Your task to perform on an android device: Open Google Chrome Image 0: 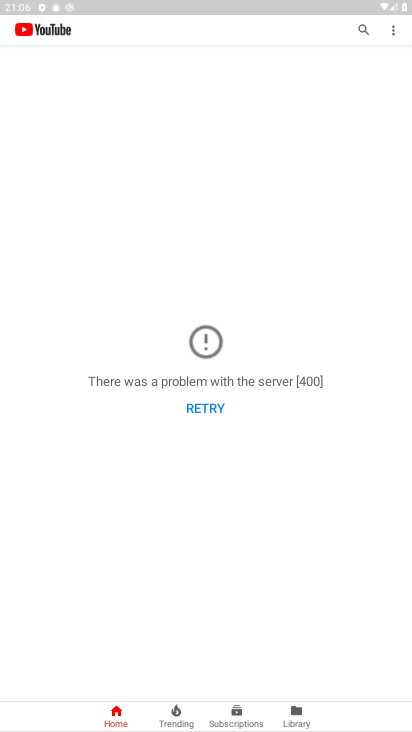
Step 0: press home button
Your task to perform on an android device: Open Google Chrome Image 1: 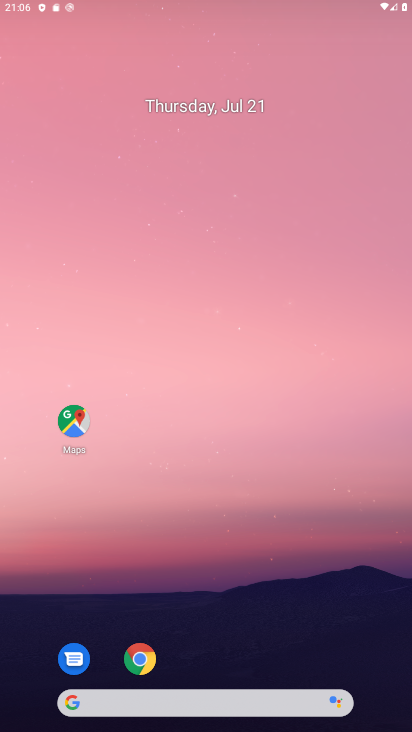
Step 1: drag from (244, 695) to (302, 294)
Your task to perform on an android device: Open Google Chrome Image 2: 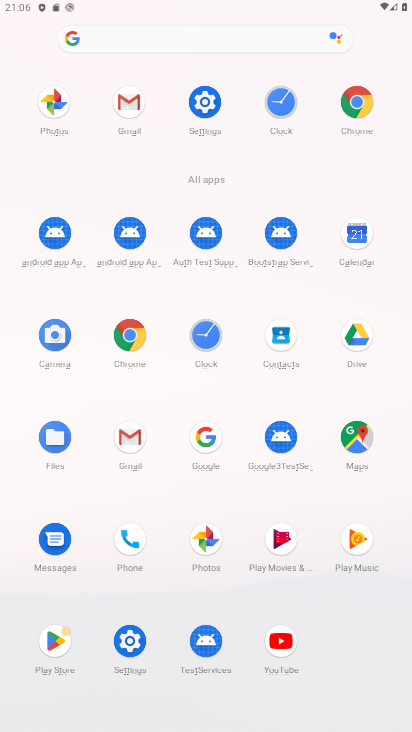
Step 2: drag from (292, 323) to (157, 614)
Your task to perform on an android device: Open Google Chrome Image 3: 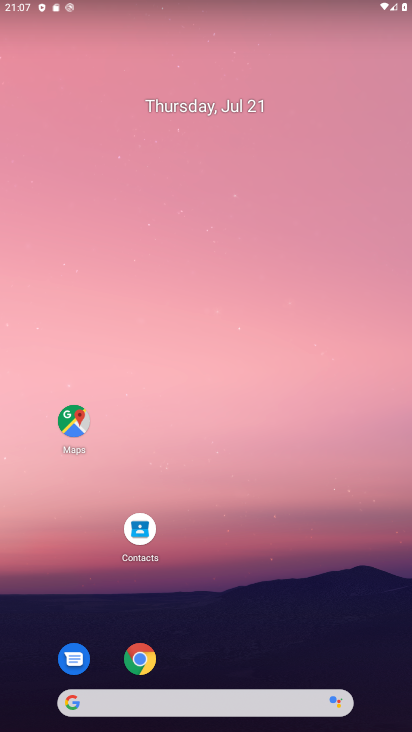
Step 3: click (183, 501)
Your task to perform on an android device: Open Google Chrome Image 4: 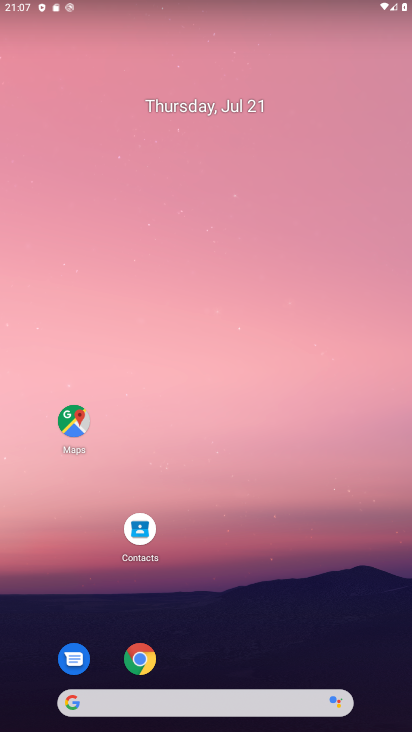
Step 4: drag from (184, 664) to (239, 162)
Your task to perform on an android device: Open Google Chrome Image 5: 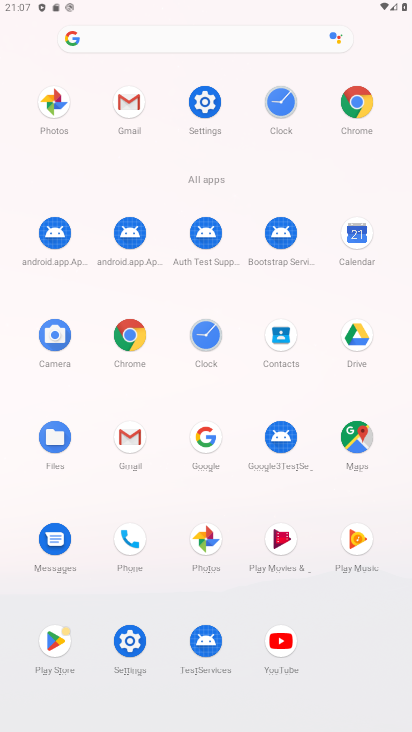
Step 5: click (130, 342)
Your task to perform on an android device: Open Google Chrome Image 6: 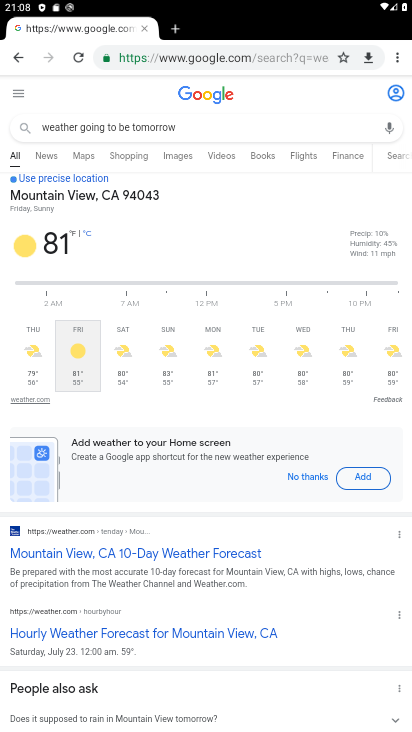
Step 6: task complete